Your task to perform on an android device: delete browsing data in the chrome app Image 0: 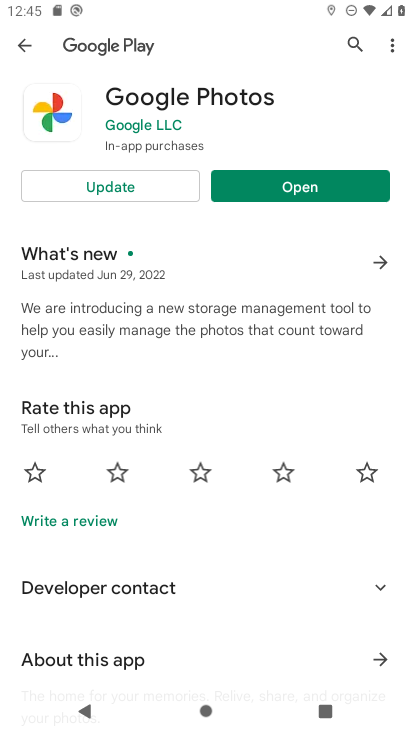
Step 0: press home button
Your task to perform on an android device: delete browsing data in the chrome app Image 1: 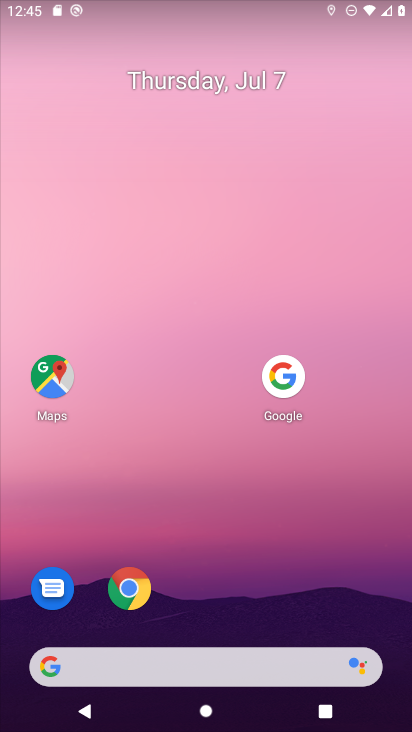
Step 1: click (124, 583)
Your task to perform on an android device: delete browsing data in the chrome app Image 2: 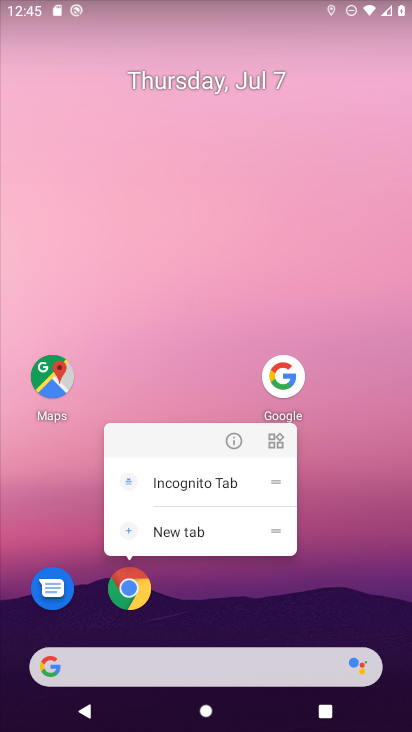
Step 2: click (132, 599)
Your task to perform on an android device: delete browsing data in the chrome app Image 3: 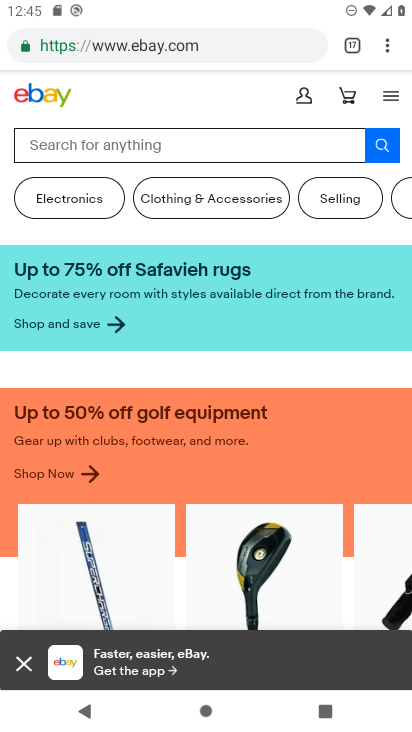
Step 3: drag from (386, 48) to (264, 553)
Your task to perform on an android device: delete browsing data in the chrome app Image 4: 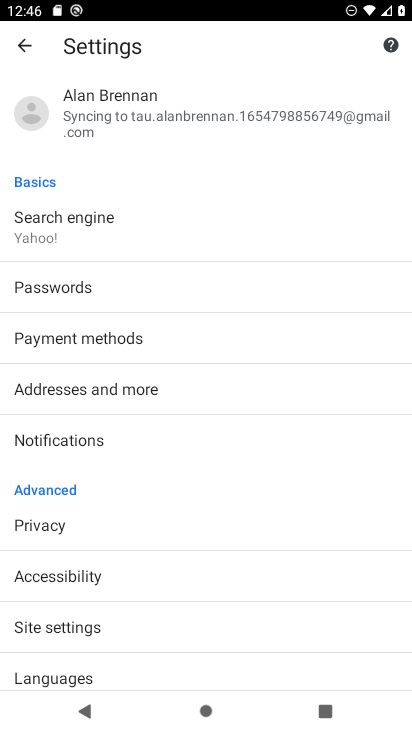
Step 4: click (61, 528)
Your task to perform on an android device: delete browsing data in the chrome app Image 5: 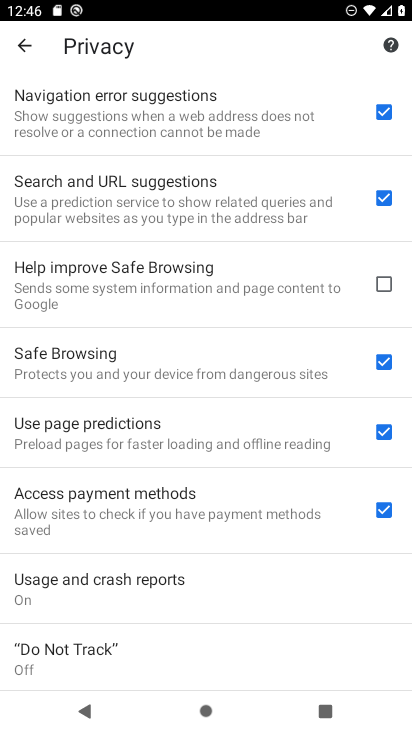
Step 5: drag from (187, 661) to (384, 48)
Your task to perform on an android device: delete browsing data in the chrome app Image 6: 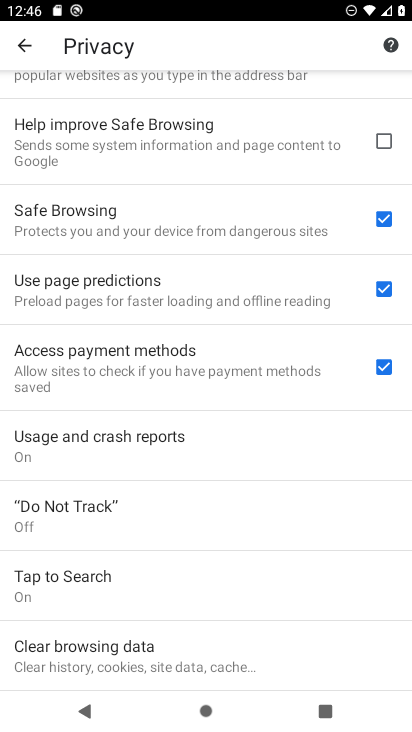
Step 6: click (186, 656)
Your task to perform on an android device: delete browsing data in the chrome app Image 7: 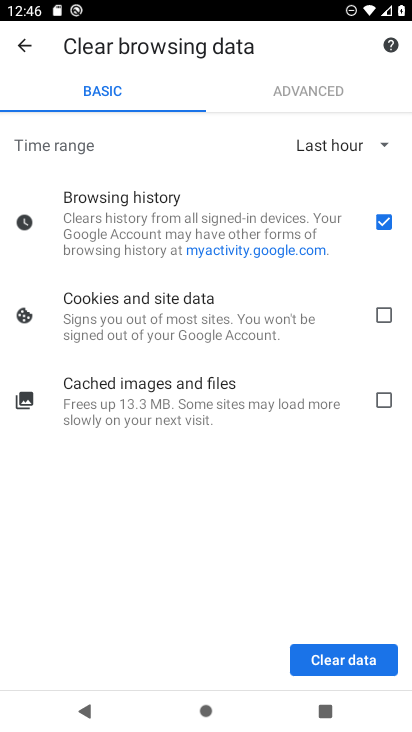
Step 7: click (341, 659)
Your task to perform on an android device: delete browsing data in the chrome app Image 8: 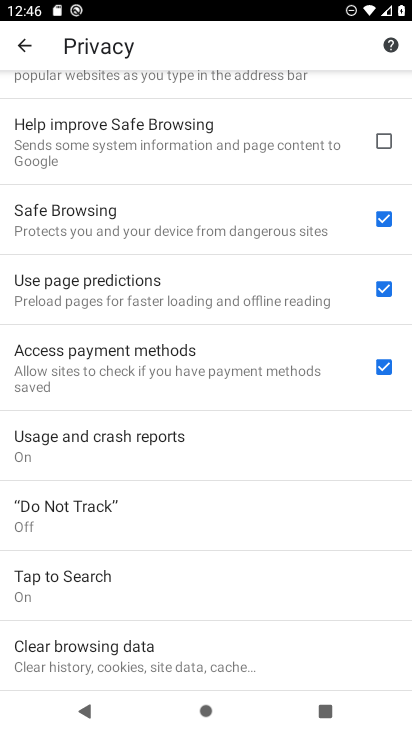
Step 8: task complete